Your task to perform on an android device: turn off smart reply in the gmail app Image 0: 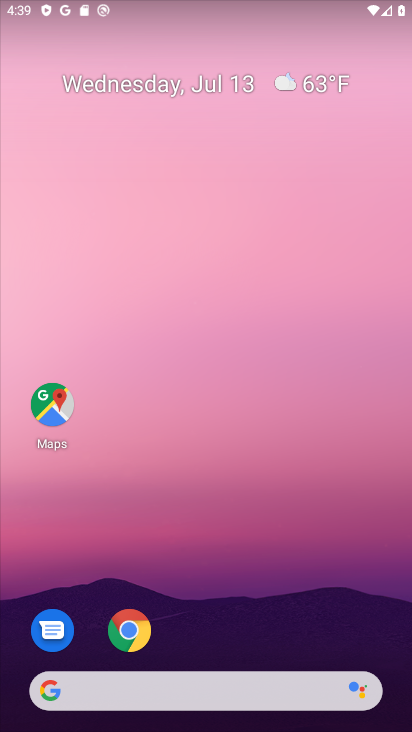
Step 0: drag from (226, 632) to (343, 37)
Your task to perform on an android device: turn off smart reply in the gmail app Image 1: 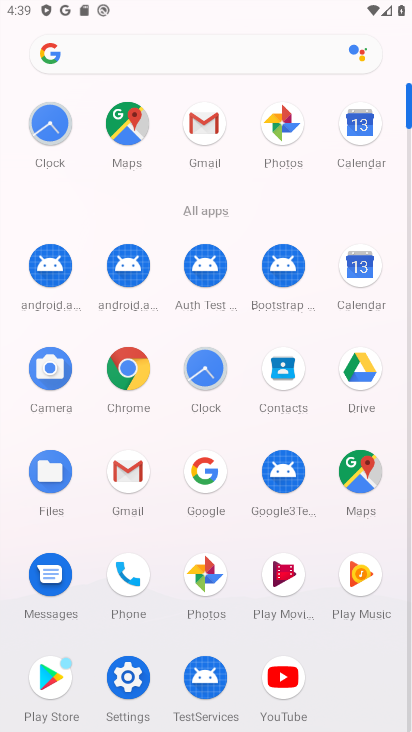
Step 1: click (202, 121)
Your task to perform on an android device: turn off smart reply in the gmail app Image 2: 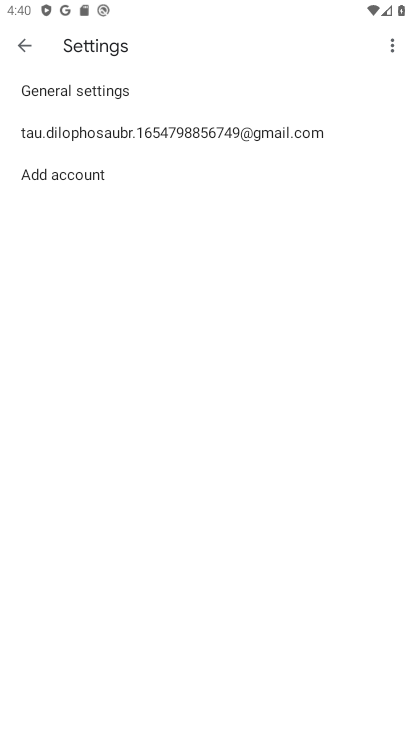
Step 2: press home button
Your task to perform on an android device: turn off smart reply in the gmail app Image 3: 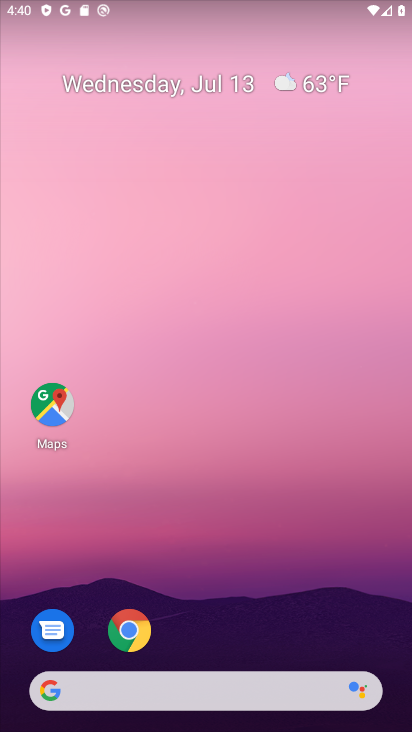
Step 3: drag from (283, 606) to (313, 127)
Your task to perform on an android device: turn off smart reply in the gmail app Image 4: 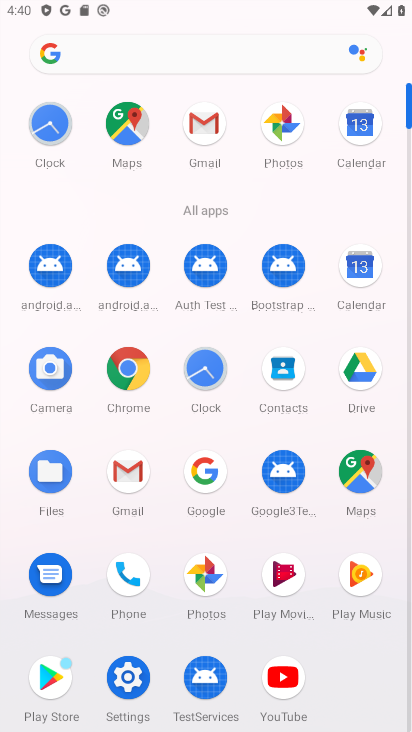
Step 4: click (124, 460)
Your task to perform on an android device: turn off smart reply in the gmail app Image 5: 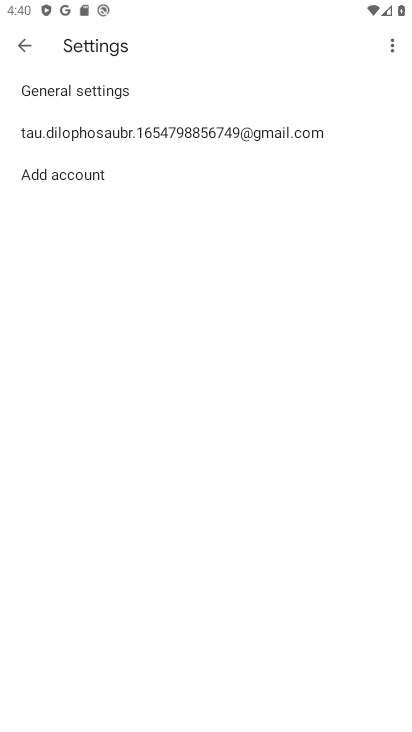
Step 5: click (117, 136)
Your task to perform on an android device: turn off smart reply in the gmail app Image 6: 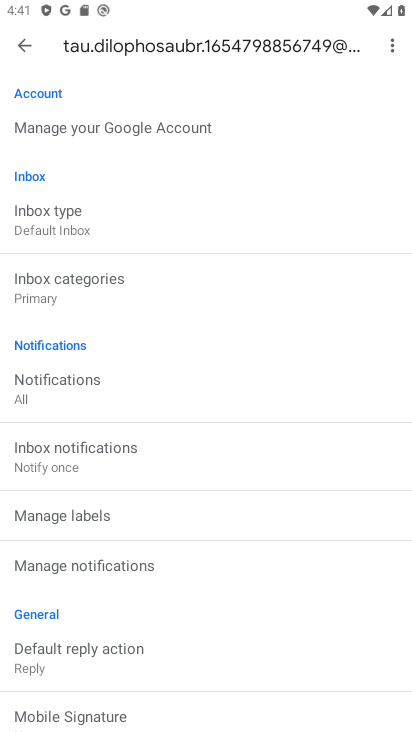
Step 6: drag from (153, 680) to (227, 142)
Your task to perform on an android device: turn off smart reply in the gmail app Image 7: 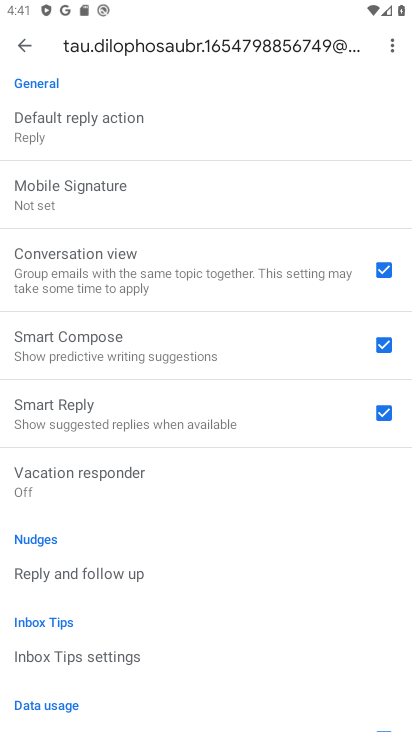
Step 7: click (394, 400)
Your task to perform on an android device: turn off smart reply in the gmail app Image 8: 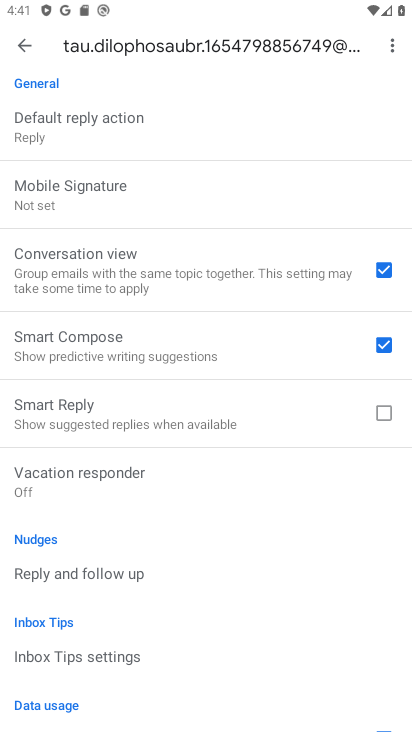
Step 8: task complete